Your task to perform on an android device: manage bookmarks in the chrome app Image 0: 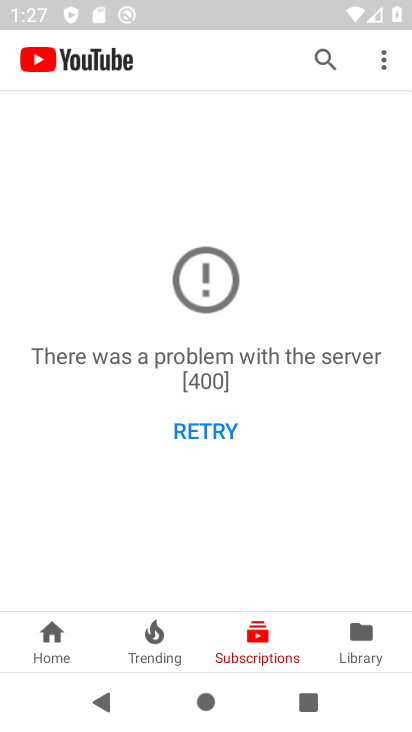
Step 0: press home button
Your task to perform on an android device: manage bookmarks in the chrome app Image 1: 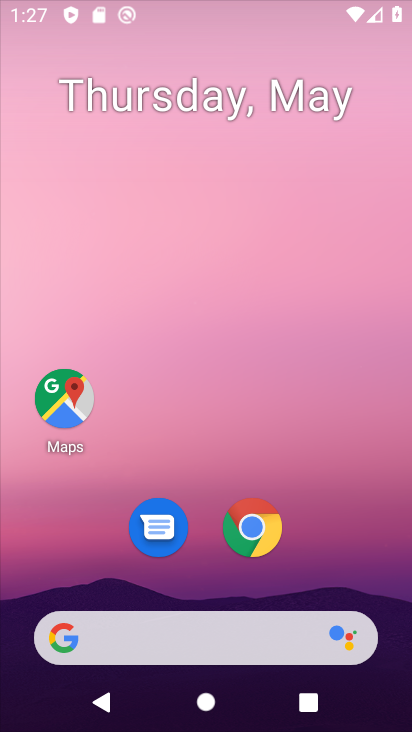
Step 1: drag from (193, 487) to (212, 110)
Your task to perform on an android device: manage bookmarks in the chrome app Image 2: 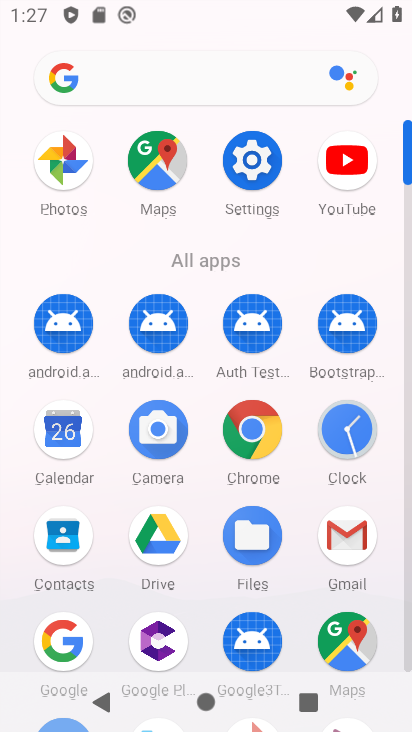
Step 2: click (242, 429)
Your task to perform on an android device: manage bookmarks in the chrome app Image 3: 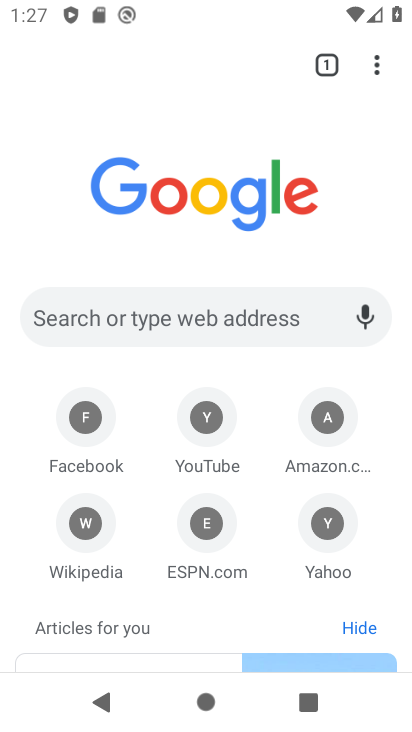
Step 3: click (380, 66)
Your task to perform on an android device: manage bookmarks in the chrome app Image 4: 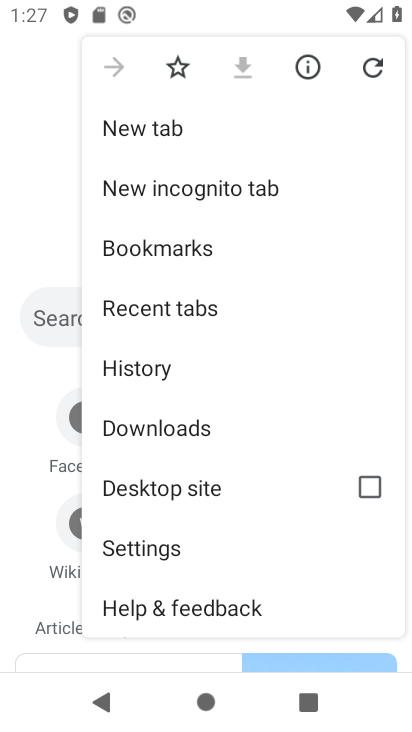
Step 4: click (199, 260)
Your task to perform on an android device: manage bookmarks in the chrome app Image 5: 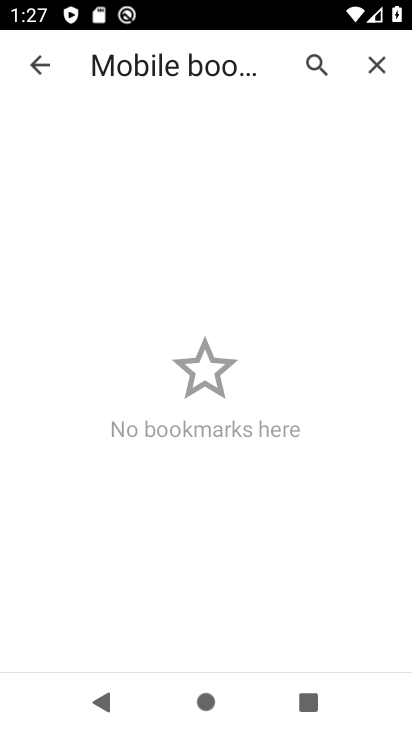
Step 5: click (35, 46)
Your task to perform on an android device: manage bookmarks in the chrome app Image 6: 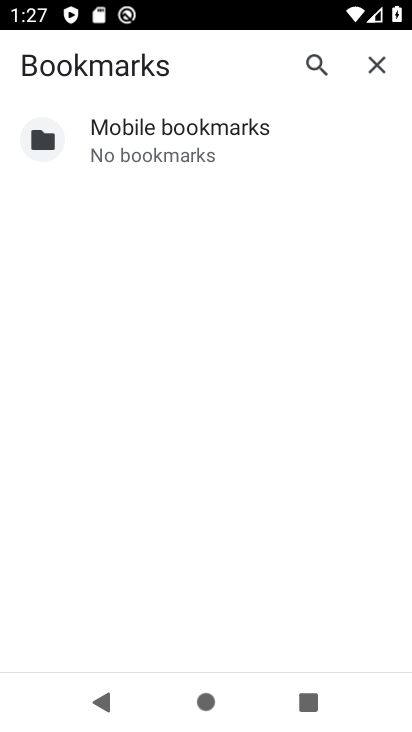
Step 6: click (385, 71)
Your task to perform on an android device: manage bookmarks in the chrome app Image 7: 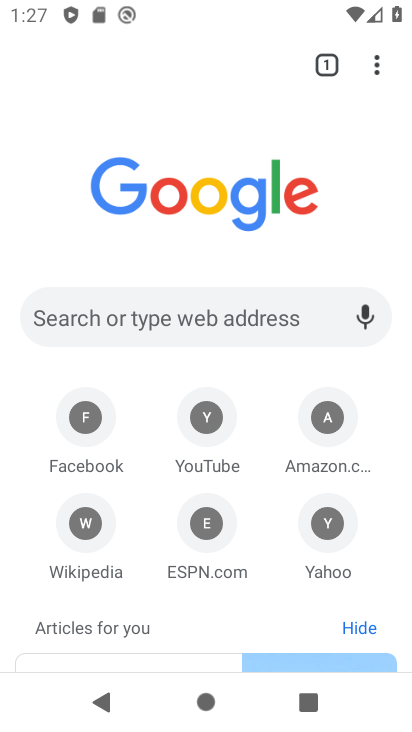
Step 7: click (391, 73)
Your task to perform on an android device: manage bookmarks in the chrome app Image 8: 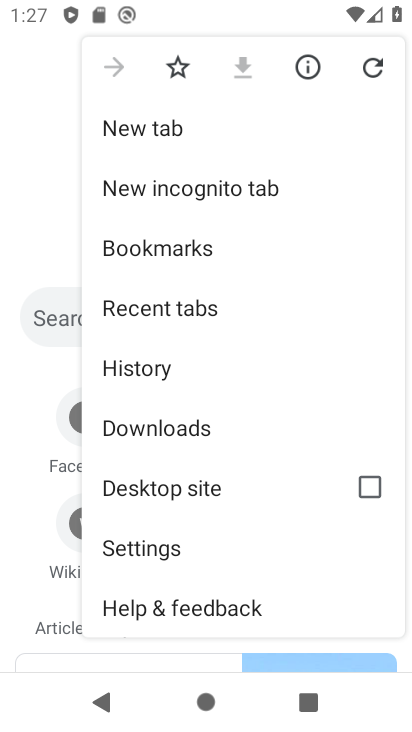
Step 8: click (186, 278)
Your task to perform on an android device: manage bookmarks in the chrome app Image 9: 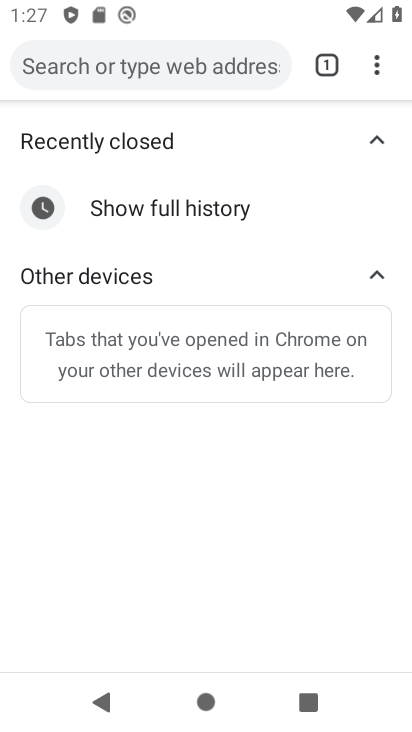
Step 9: click (371, 69)
Your task to perform on an android device: manage bookmarks in the chrome app Image 10: 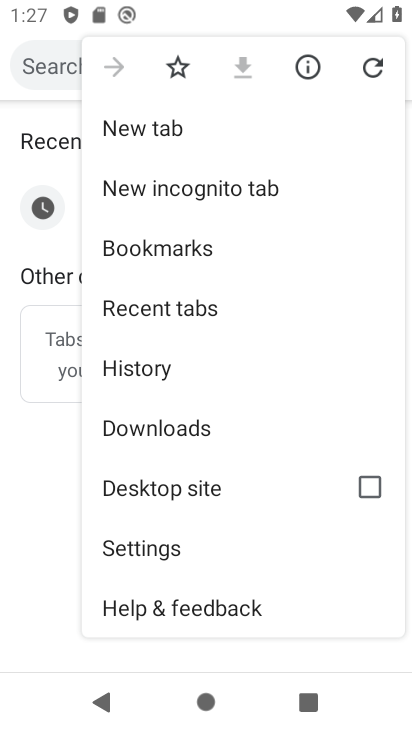
Step 10: click (163, 253)
Your task to perform on an android device: manage bookmarks in the chrome app Image 11: 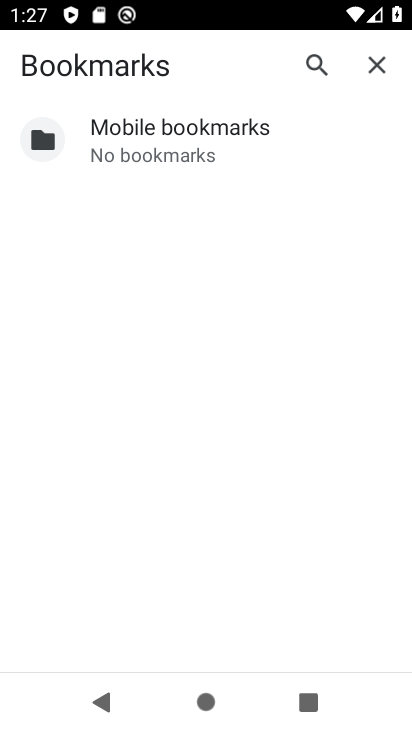
Step 11: task complete